Your task to perform on an android device: What's on my calendar tomorrow? Image 0: 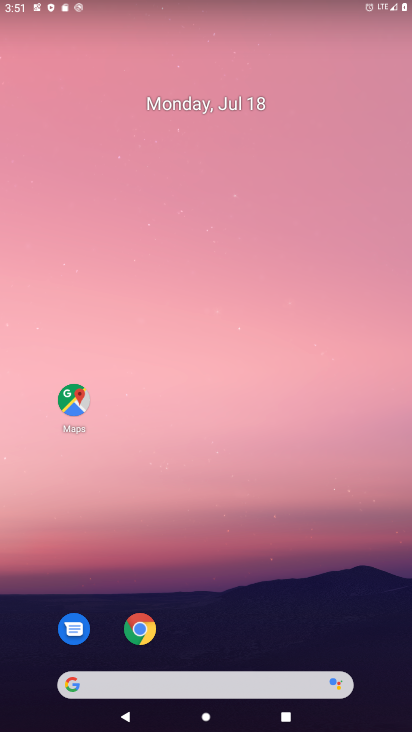
Step 0: drag from (202, 668) to (96, 0)
Your task to perform on an android device: What's on my calendar tomorrow? Image 1: 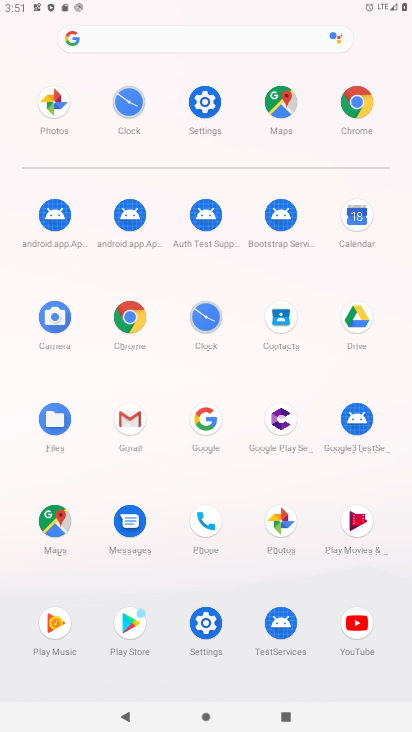
Step 1: click (350, 214)
Your task to perform on an android device: What's on my calendar tomorrow? Image 2: 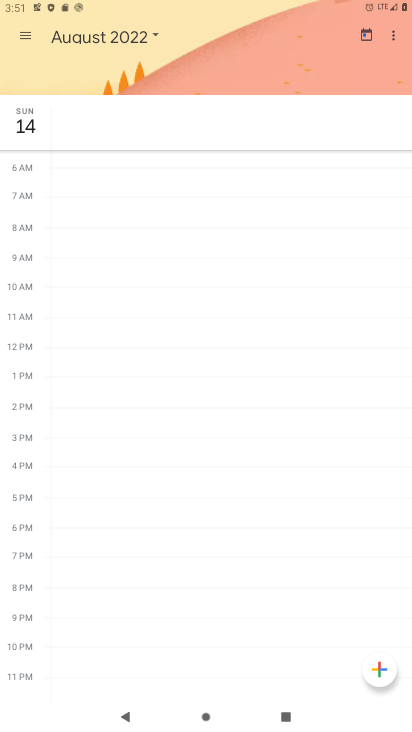
Step 2: click (24, 39)
Your task to perform on an android device: What's on my calendar tomorrow? Image 3: 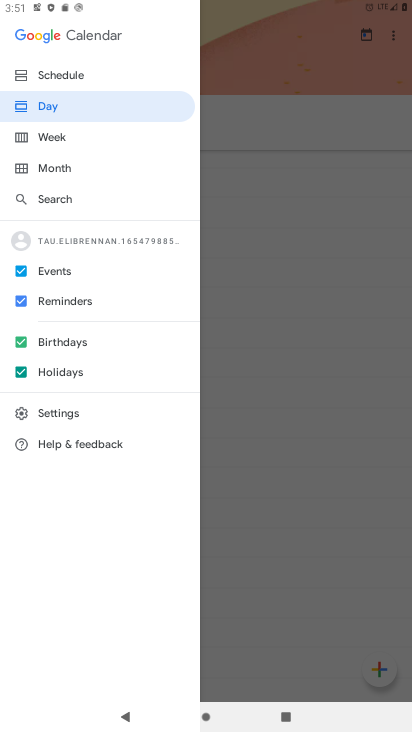
Step 3: click (65, 140)
Your task to perform on an android device: What's on my calendar tomorrow? Image 4: 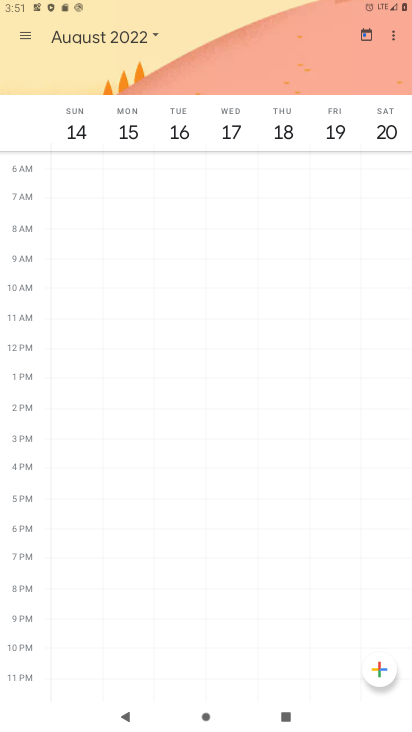
Step 4: task complete